Your task to perform on an android device: Open battery settings Image 0: 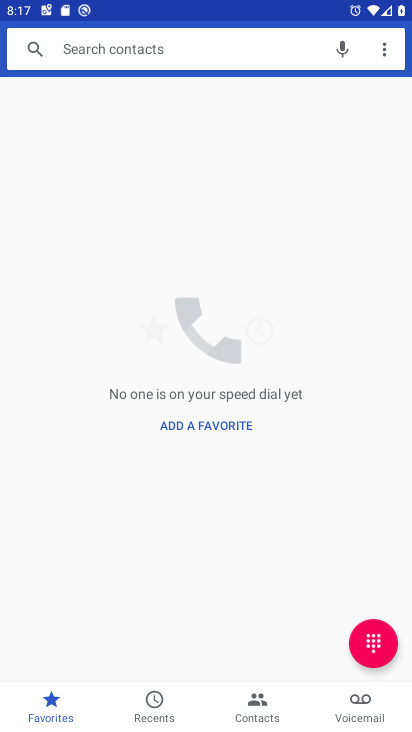
Step 0: press home button
Your task to perform on an android device: Open battery settings Image 1: 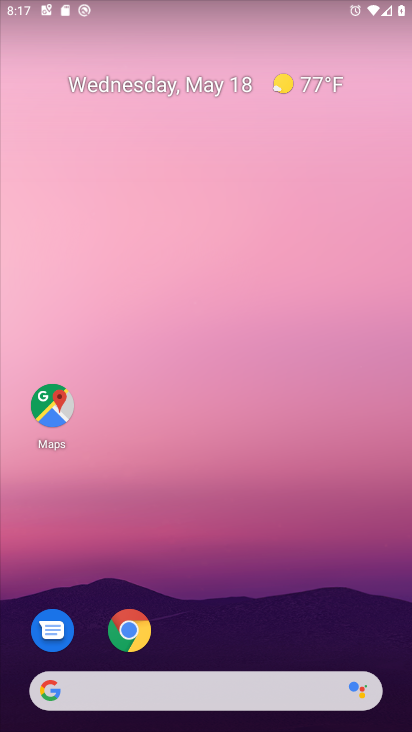
Step 1: drag from (289, 606) to (338, 199)
Your task to perform on an android device: Open battery settings Image 2: 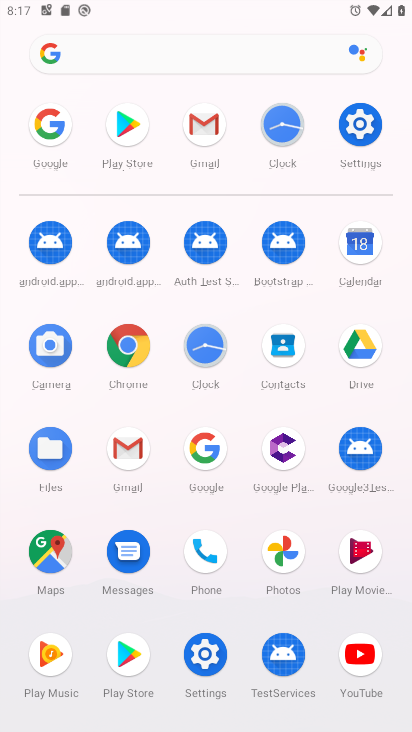
Step 2: click (361, 135)
Your task to perform on an android device: Open battery settings Image 3: 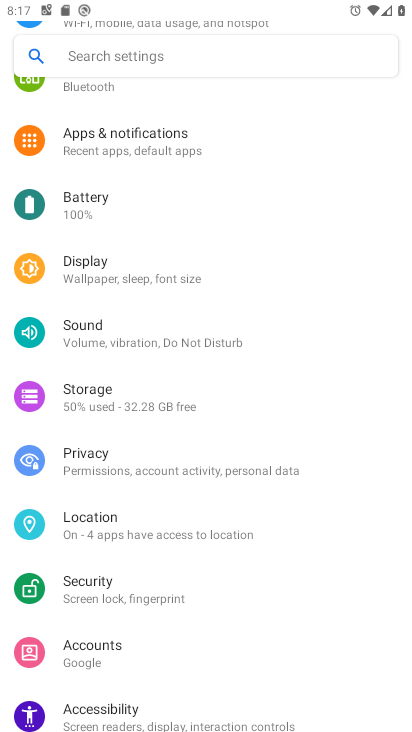
Step 3: click (134, 219)
Your task to perform on an android device: Open battery settings Image 4: 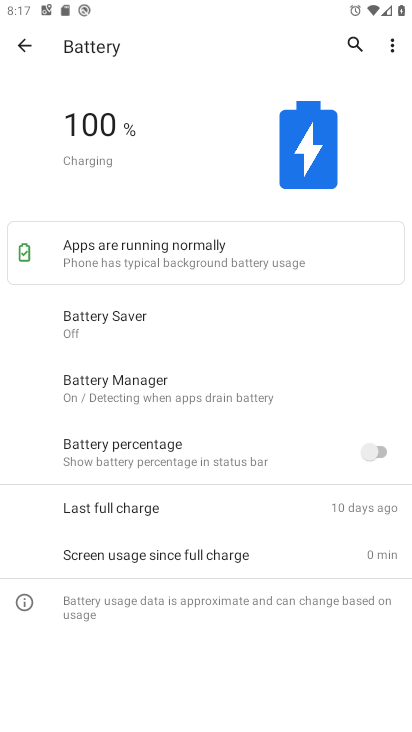
Step 4: task complete